Your task to perform on an android device: Open Google Maps Image 0: 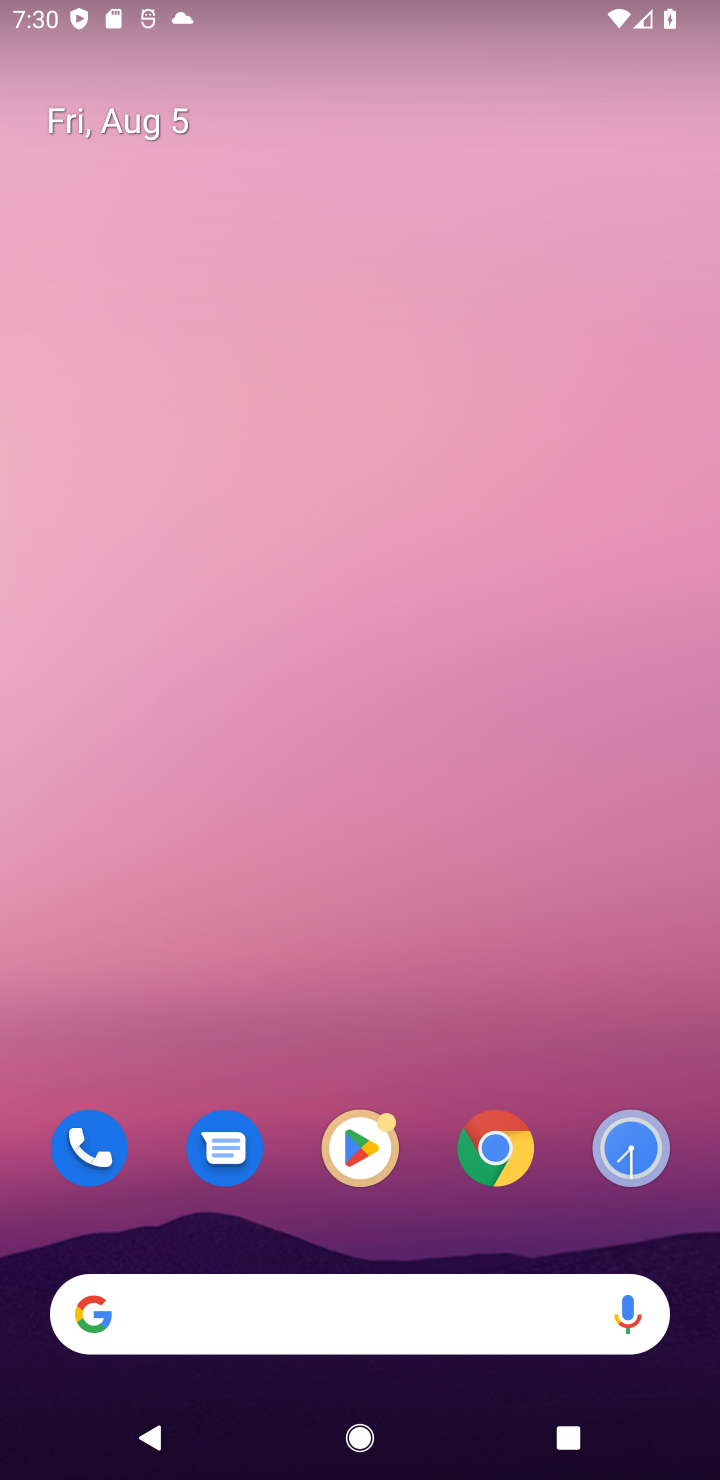
Step 0: drag from (434, 1254) to (431, 248)
Your task to perform on an android device: Open Google Maps Image 1: 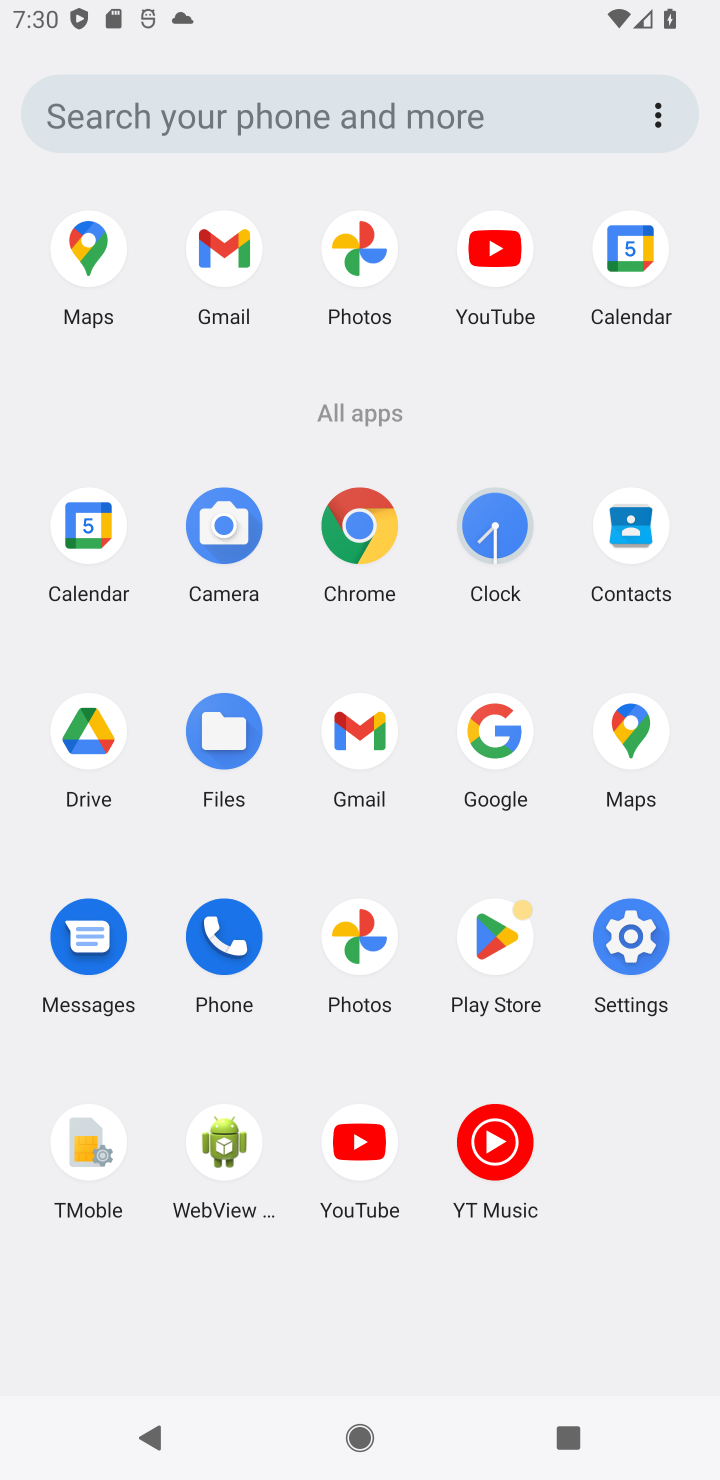
Step 1: click (107, 298)
Your task to perform on an android device: Open Google Maps Image 2: 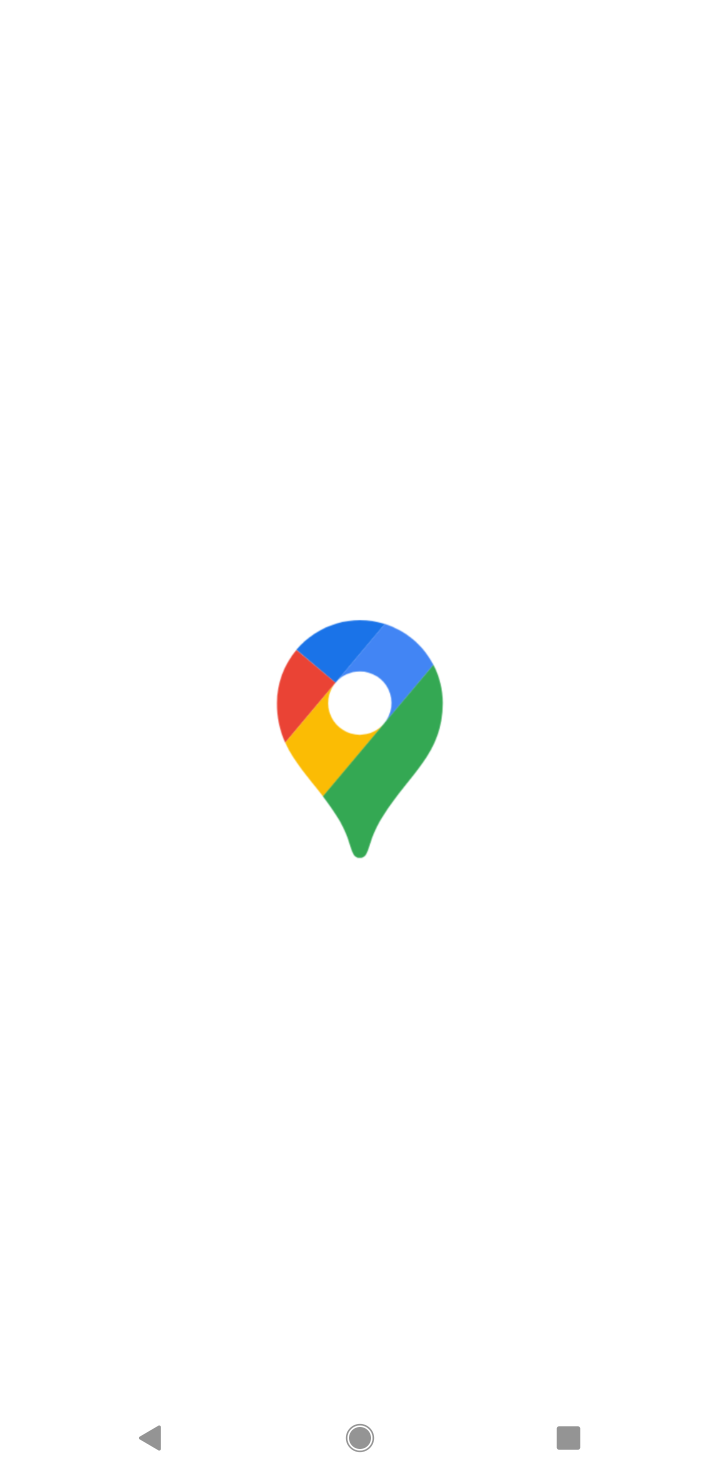
Step 2: task complete